Your task to perform on an android device: Search for Italian restaurants on Maps Image 0: 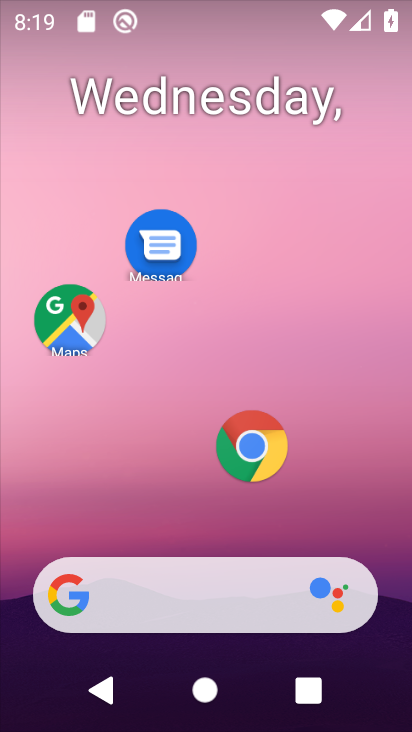
Step 0: drag from (210, 532) to (210, 104)
Your task to perform on an android device: Search for Italian restaurants on Maps Image 1: 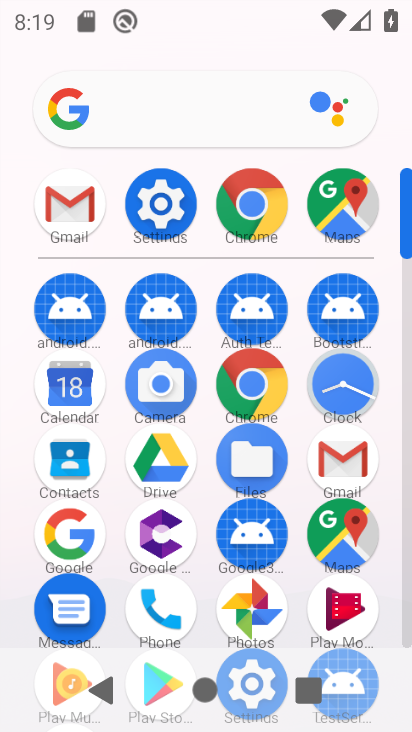
Step 1: click (340, 202)
Your task to perform on an android device: Search for Italian restaurants on Maps Image 2: 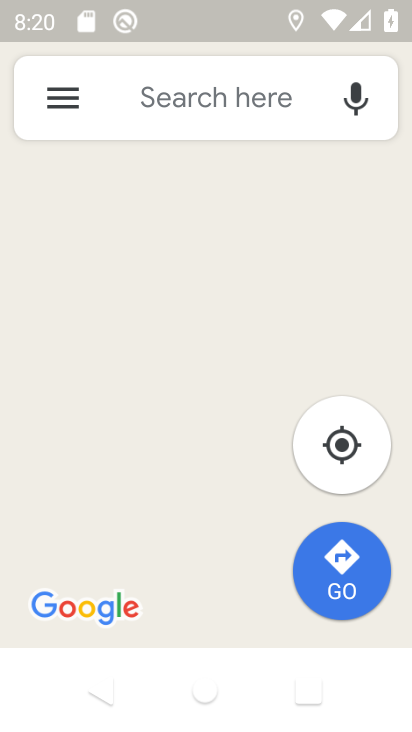
Step 2: click (168, 98)
Your task to perform on an android device: Search for Italian restaurants on Maps Image 3: 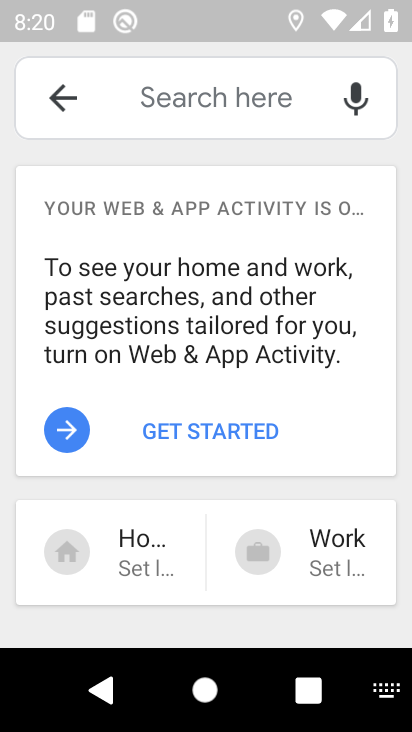
Step 3: type "italian"
Your task to perform on an android device: Search for Italian restaurants on Maps Image 4: 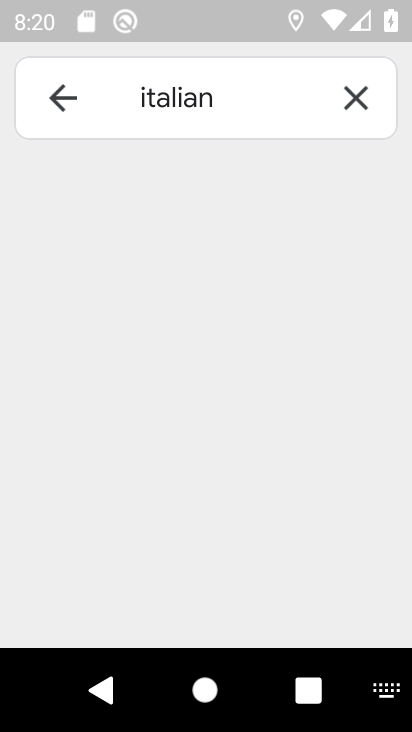
Step 4: click (354, 105)
Your task to perform on an android device: Search for Italian restaurants on Maps Image 5: 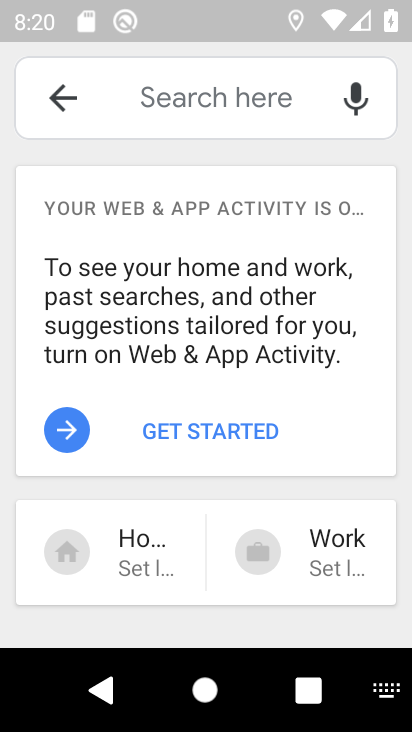
Step 5: click (183, 83)
Your task to perform on an android device: Search for Italian restaurants on Maps Image 6: 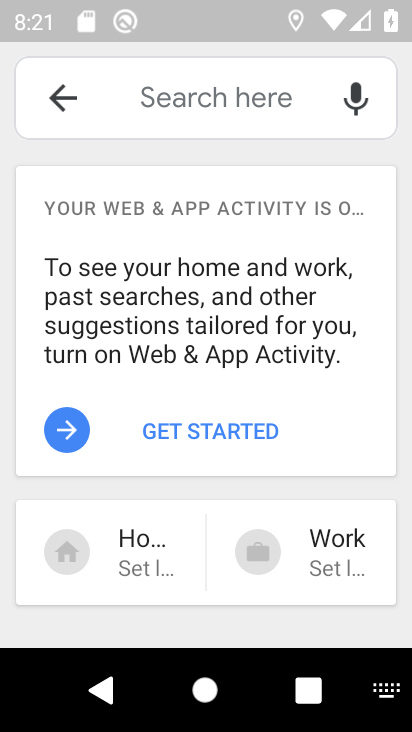
Step 6: type "italian"
Your task to perform on an android device: Search for Italian restaurants on Maps Image 7: 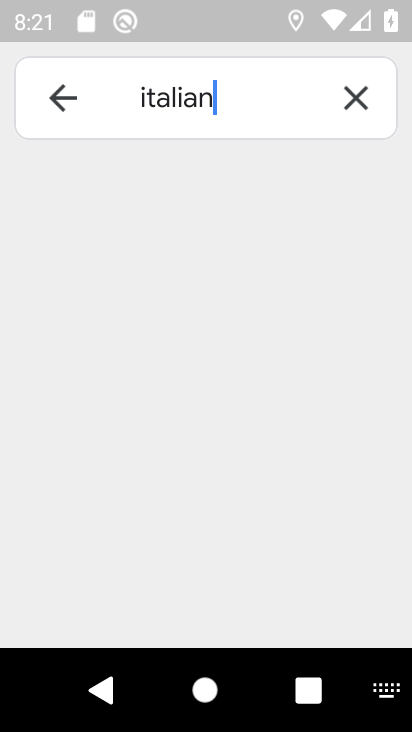
Step 7: task complete